Your task to perform on an android device: turn on translation in the chrome app Image 0: 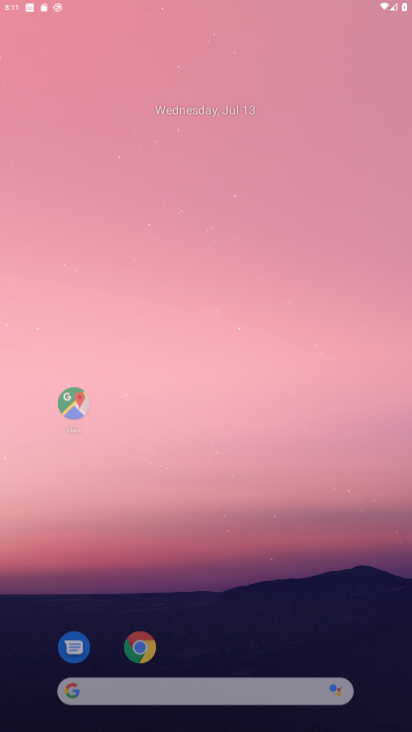
Step 0: click (275, 578)
Your task to perform on an android device: turn on translation in the chrome app Image 1: 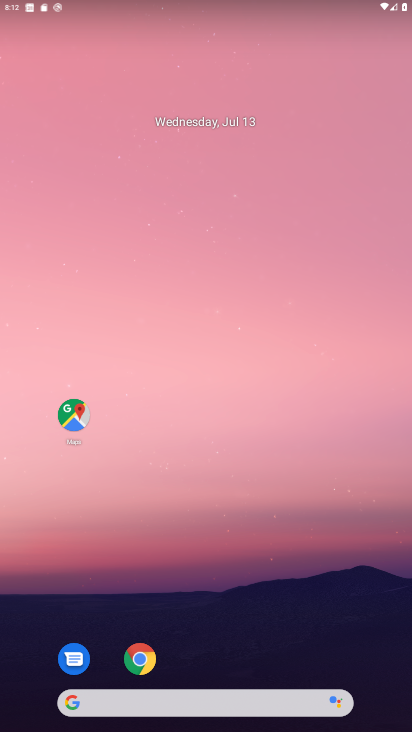
Step 1: click (139, 653)
Your task to perform on an android device: turn on translation in the chrome app Image 2: 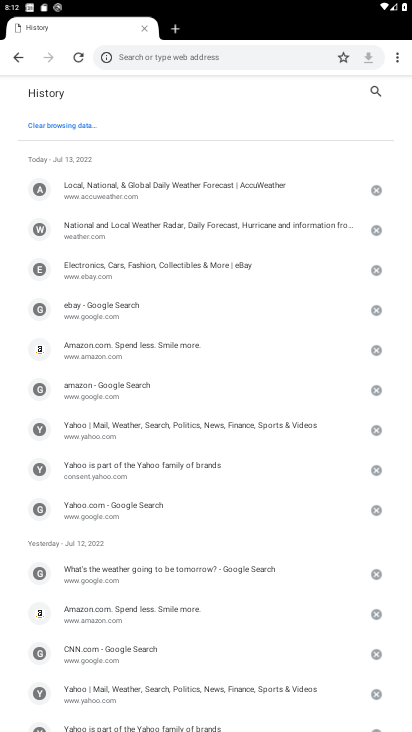
Step 2: click (396, 57)
Your task to perform on an android device: turn on translation in the chrome app Image 3: 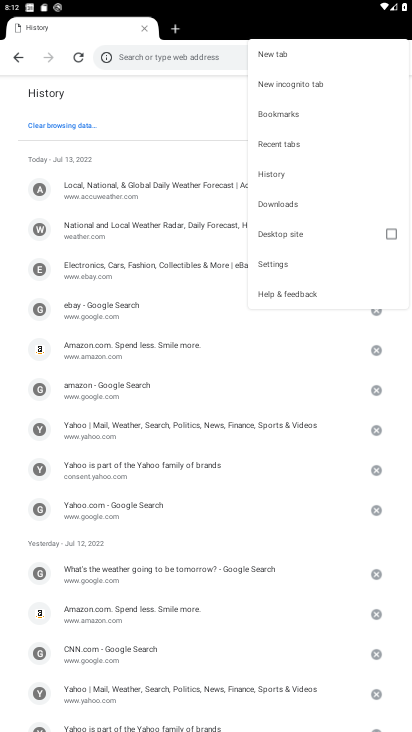
Step 3: click (273, 264)
Your task to perform on an android device: turn on translation in the chrome app Image 4: 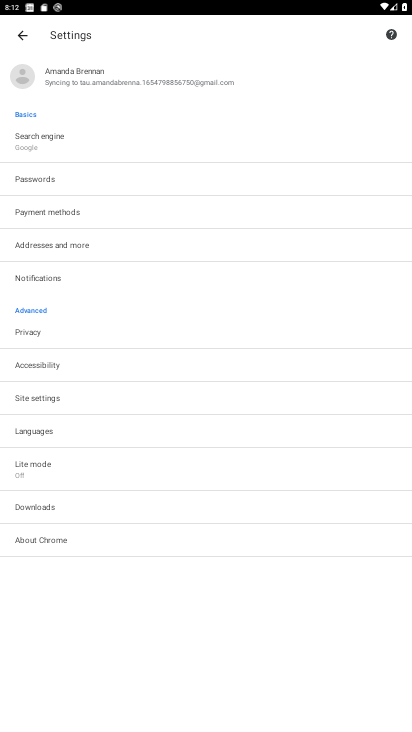
Step 4: click (36, 430)
Your task to perform on an android device: turn on translation in the chrome app Image 5: 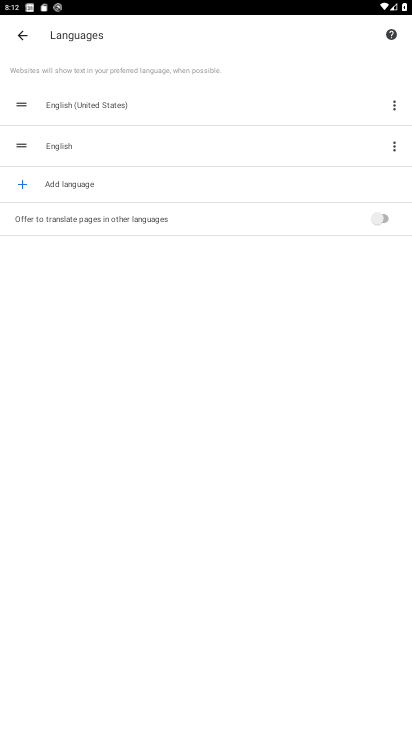
Step 5: click (371, 216)
Your task to perform on an android device: turn on translation in the chrome app Image 6: 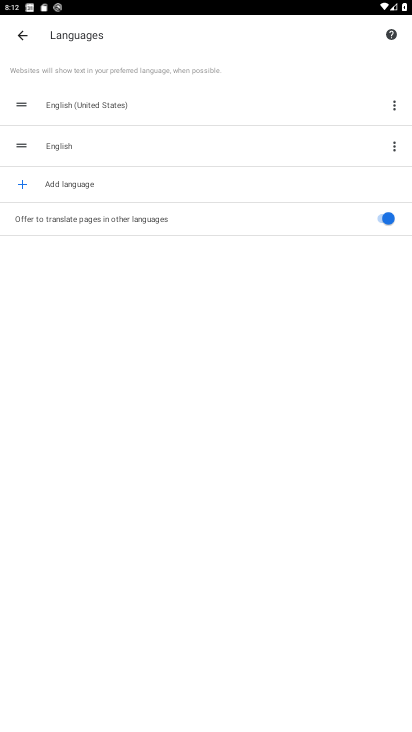
Step 6: task complete